Your task to perform on an android device: turn off smart reply in the gmail app Image 0: 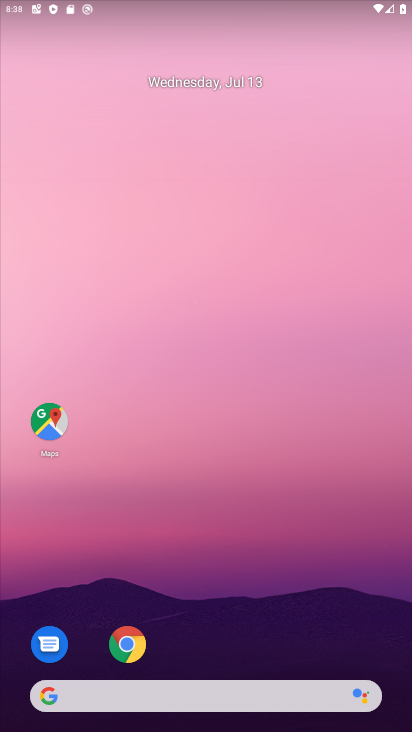
Step 0: drag from (217, 720) to (217, 159)
Your task to perform on an android device: turn off smart reply in the gmail app Image 1: 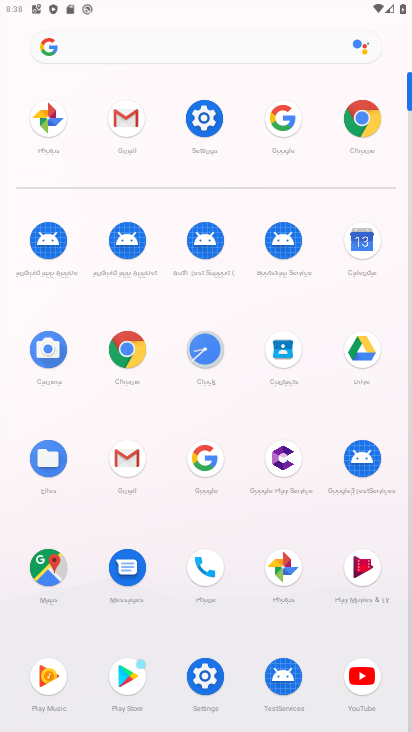
Step 1: click (131, 461)
Your task to perform on an android device: turn off smart reply in the gmail app Image 2: 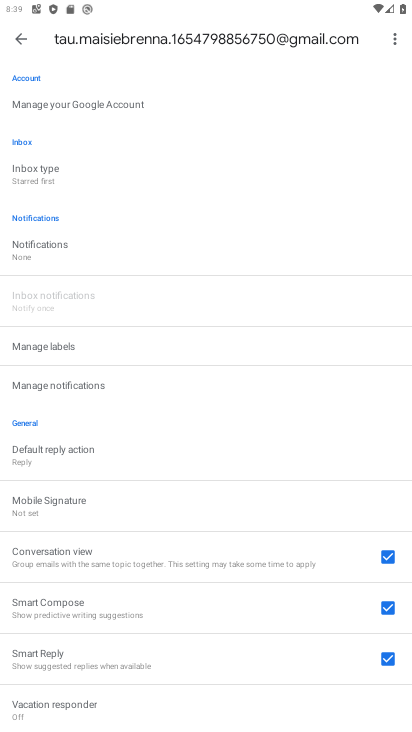
Step 2: click (390, 655)
Your task to perform on an android device: turn off smart reply in the gmail app Image 3: 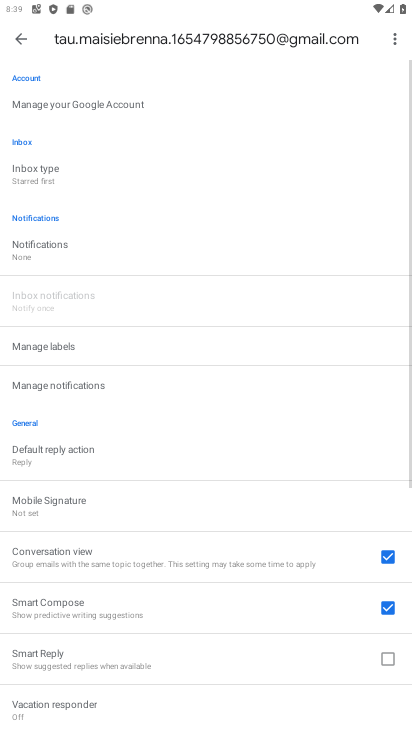
Step 3: task complete